Your task to perform on an android device: What's on my calendar today? Image 0: 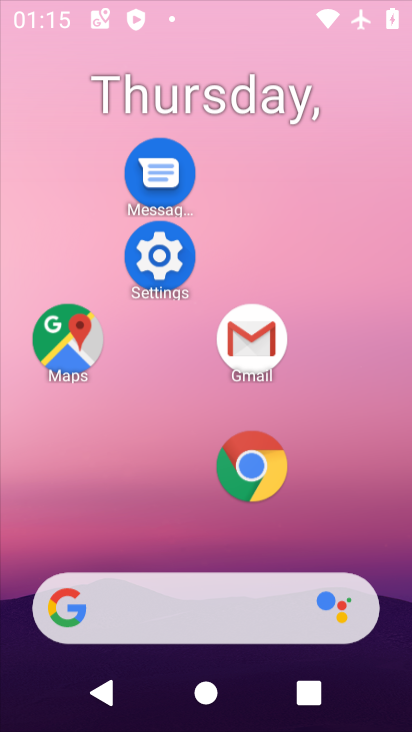
Step 0: click (207, 106)
Your task to perform on an android device: What's on my calendar today? Image 1: 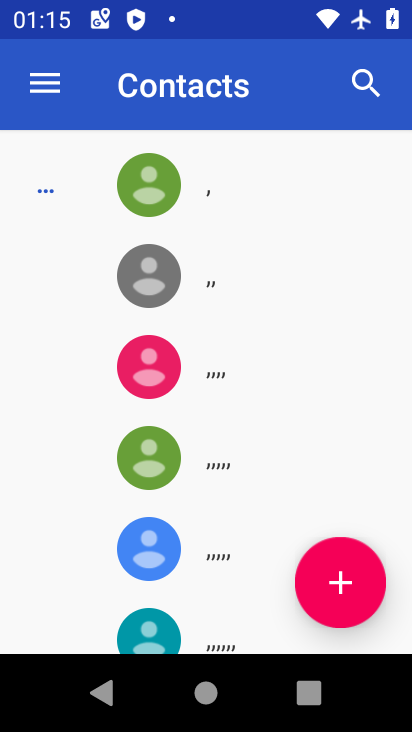
Step 1: drag from (214, 514) to (234, 144)
Your task to perform on an android device: What's on my calendar today? Image 2: 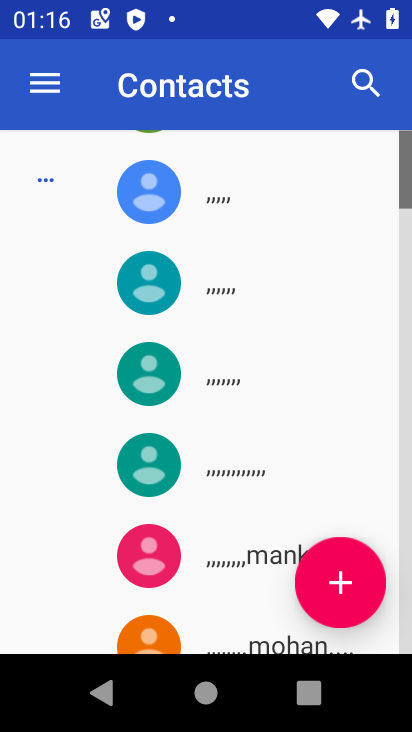
Step 2: press home button
Your task to perform on an android device: What's on my calendar today? Image 3: 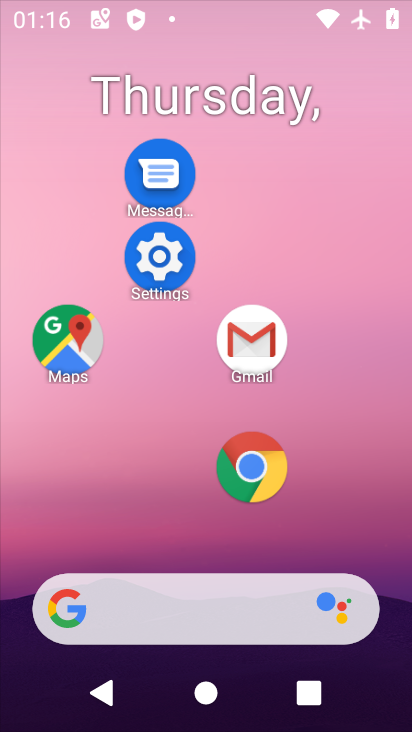
Step 3: drag from (197, 588) to (245, 140)
Your task to perform on an android device: What's on my calendar today? Image 4: 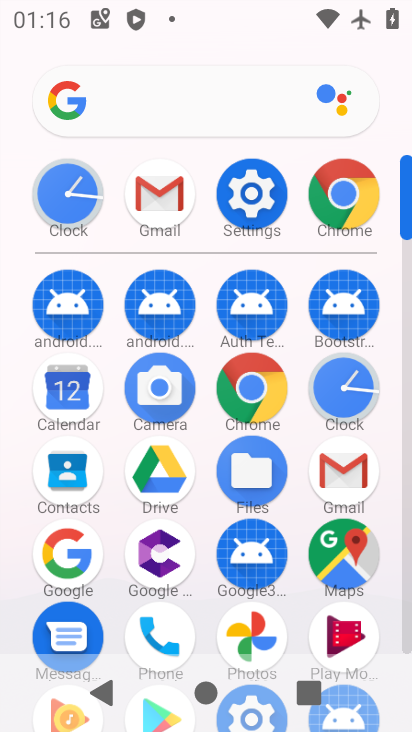
Step 4: click (62, 391)
Your task to perform on an android device: What's on my calendar today? Image 5: 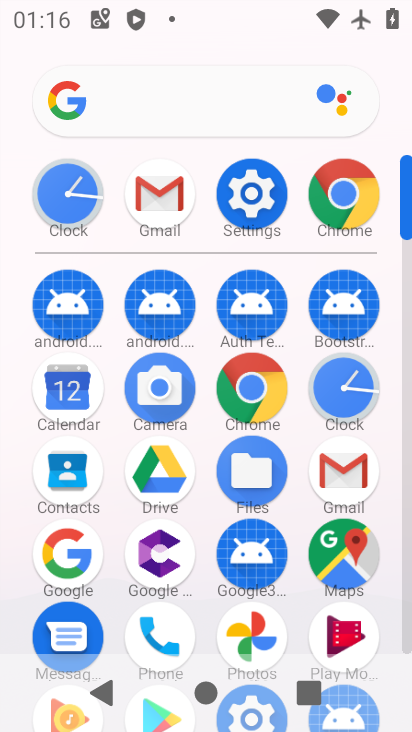
Step 5: click (62, 387)
Your task to perform on an android device: What's on my calendar today? Image 6: 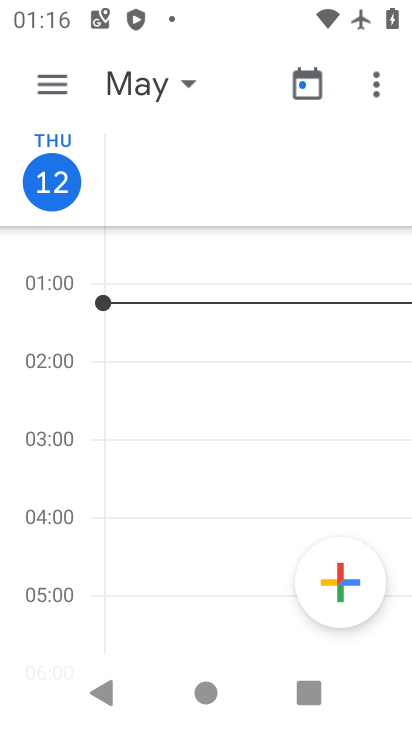
Step 6: drag from (178, 506) to (183, 219)
Your task to perform on an android device: What's on my calendar today? Image 7: 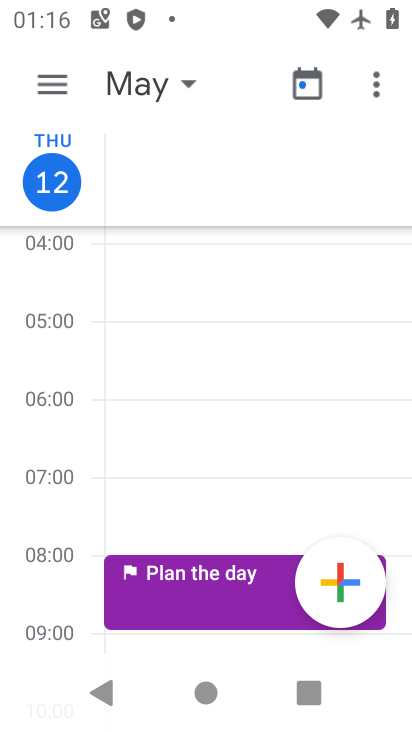
Step 7: drag from (169, 308) to (239, 584)
Your task to perform on an android device: What's on my calendar today? Image 8: 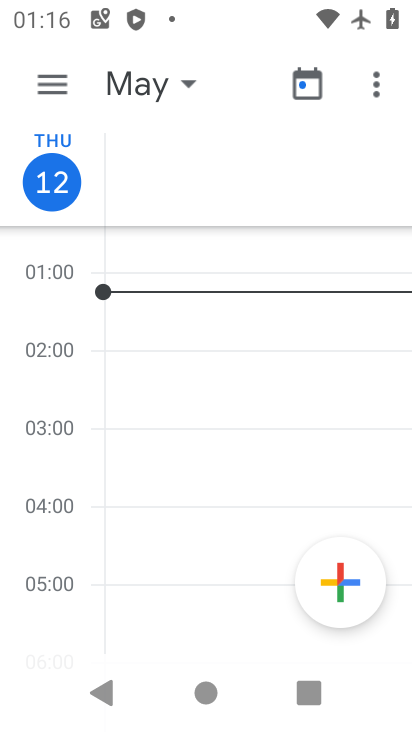
Step 8: drag from (270, 301) to (257, 550)
Your task to perform on an android device: What's on my calendar today? Image 9: 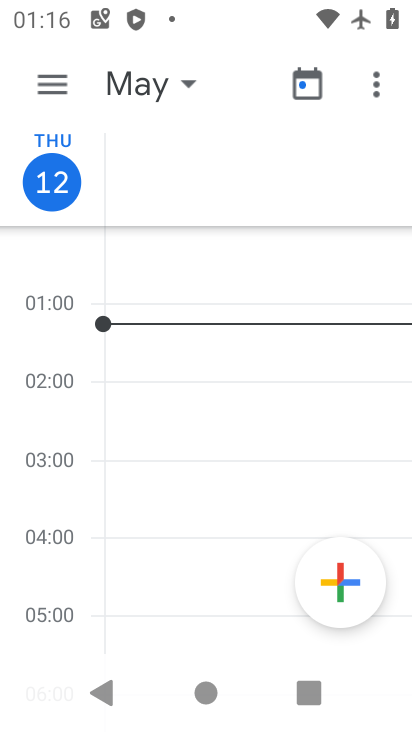
Step 9: drag from (234, 340) to (273, 599)
Your task to perform on an android device: What's on my calendar today? Image 10: 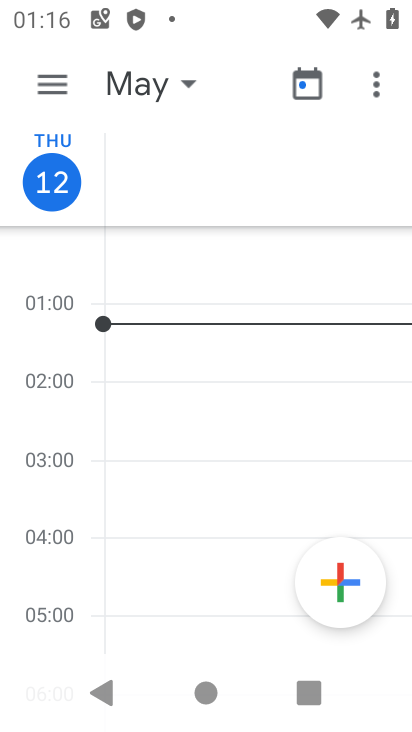
Step 10: click (187, 57)
Your task to perform on an android device: What's on my calendar today? Image 11: 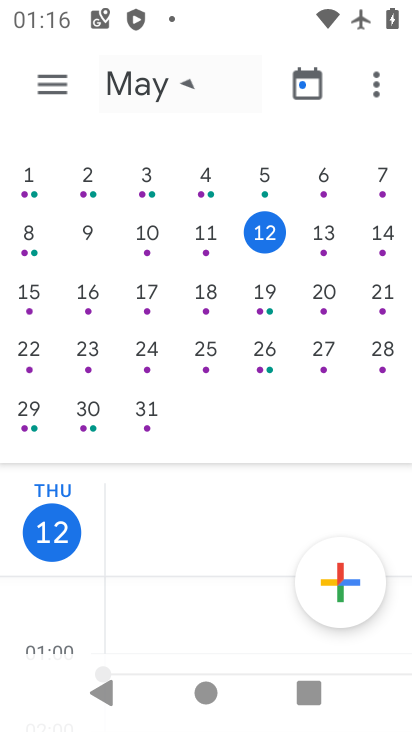
Step 11: click (184, 76)
Your task to perform on an android device: What's on my calendar today? Image 12: 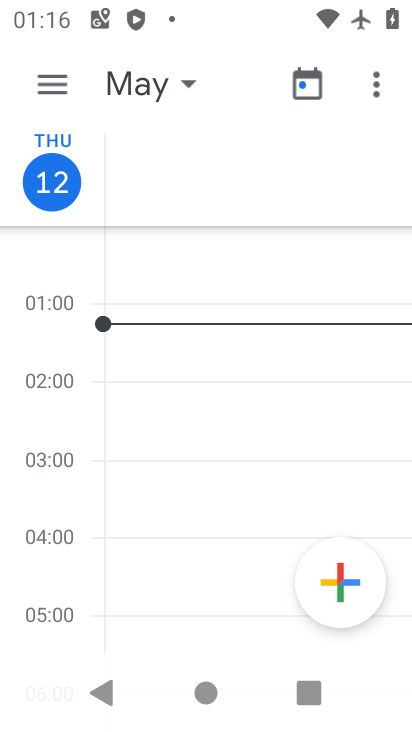
Step 12: drag from (265, 467) to (299, 249)
Your task to perform on an android device: What's on my calendar today? Image 13: 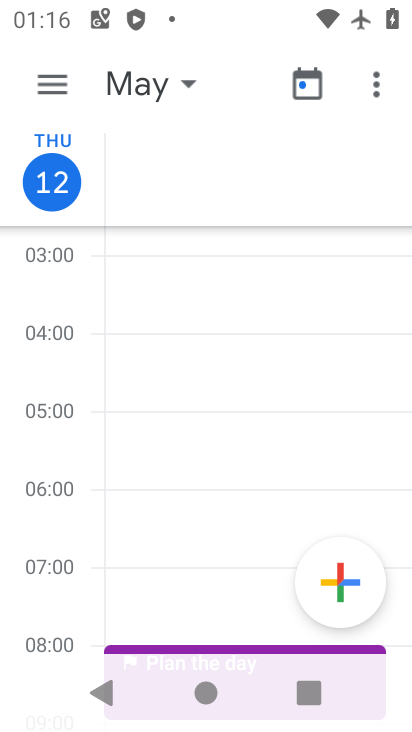
Step 13: drag from (216, 567) to (232, 331)
Your task to perform on an android device: What's on my calendar today? Image 14: 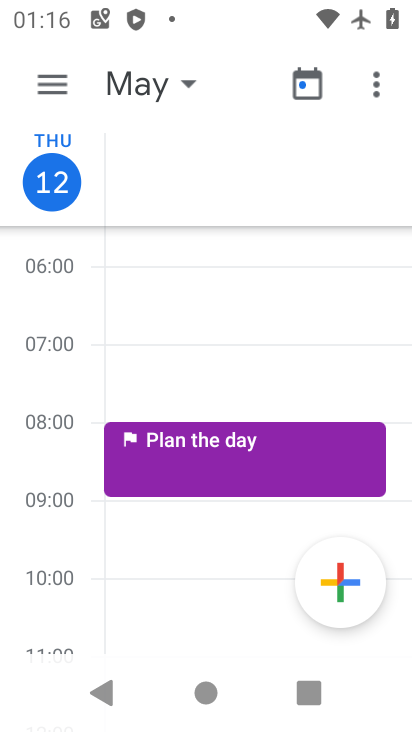
Step 14: click (156, 92)
Your task to perform on an android device: What's on my calendar today? Image 15: 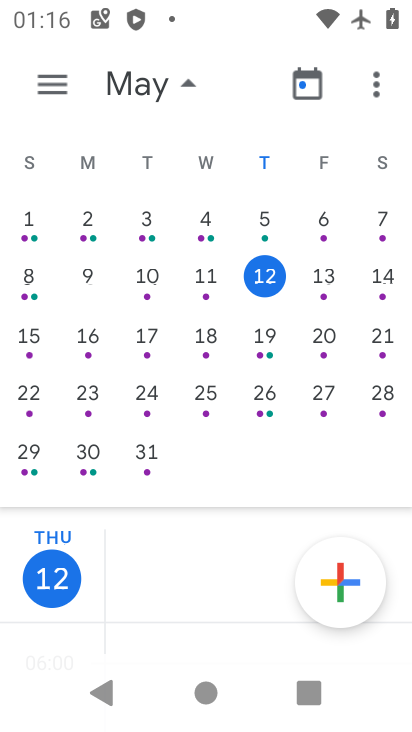
Step 15: click (265, 269)
Your task to perform on an android device: What's on my calendar today? Image 16: 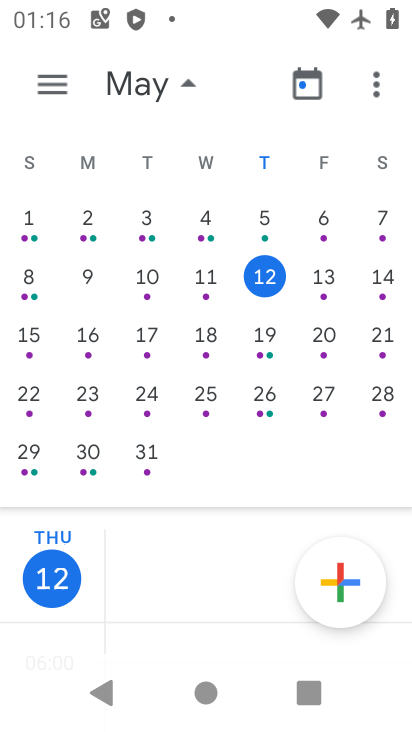
Step 16: task complete